Your task to perform on an android device: turn notification dots on Image 0: 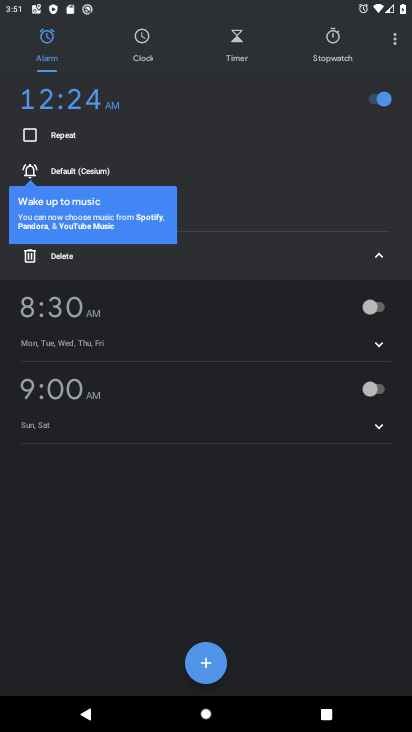
Step 0: press home button
Your task to perform on an android device: turn notification dots on Image 1: 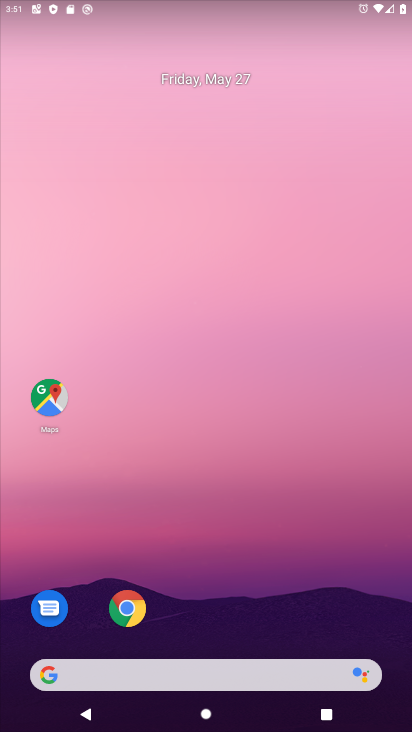
Step 1: drag from (184, 621) to (240, 190)
Your task to perform on an android device: turn notification dots on Image 2: 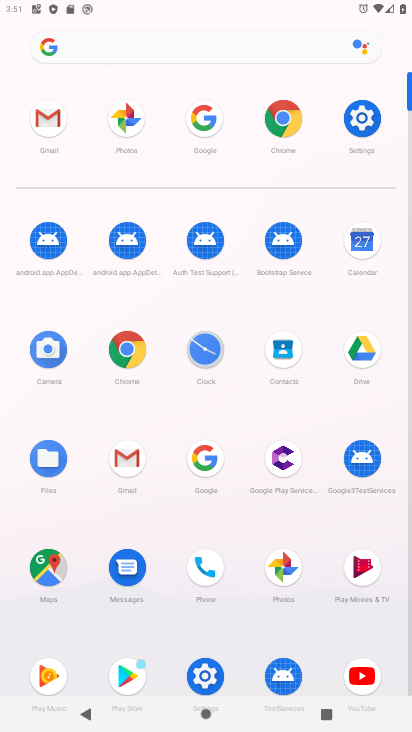
Step 2: click (364, 123)
Your task to perform on an android device: turn notification dots on Image 3: 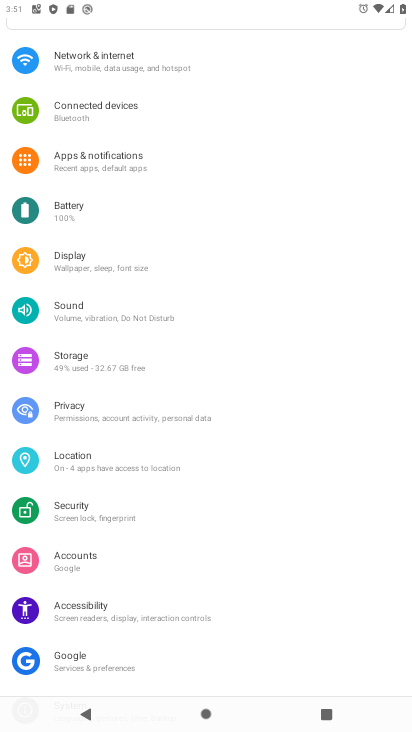
Step 3: click (102, 157)
Your task to perform on an android device: turn notification dots on Image 4: 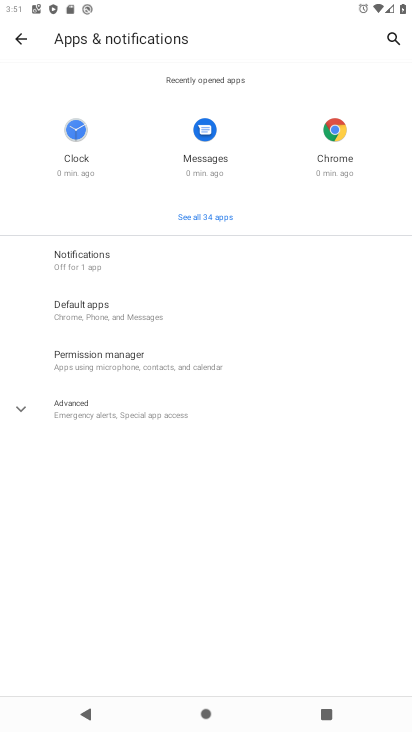
Step 4: click (83, 405)
Your task to perform on an android device: turn notification dots on Image 5: 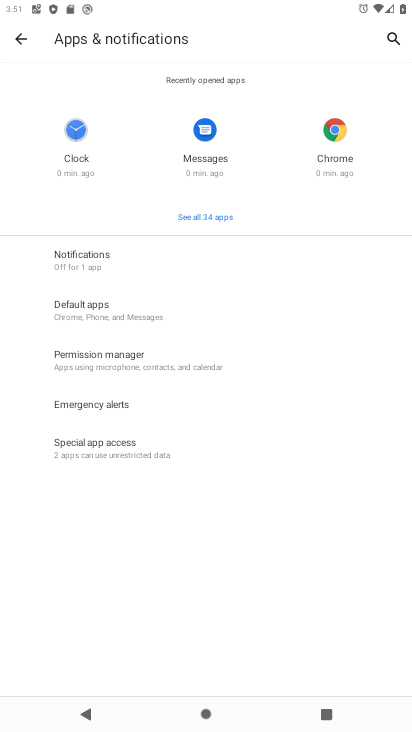
Step 5: click (100, 263)
Your task to perform on an android device: turn notification dots on Image 6: 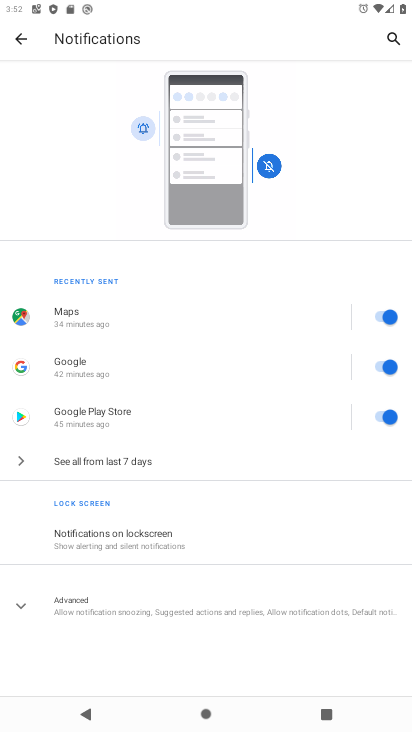
Step 6: click (78, 604)
Your task to perform on an android device: turn notification dots on Image 7: 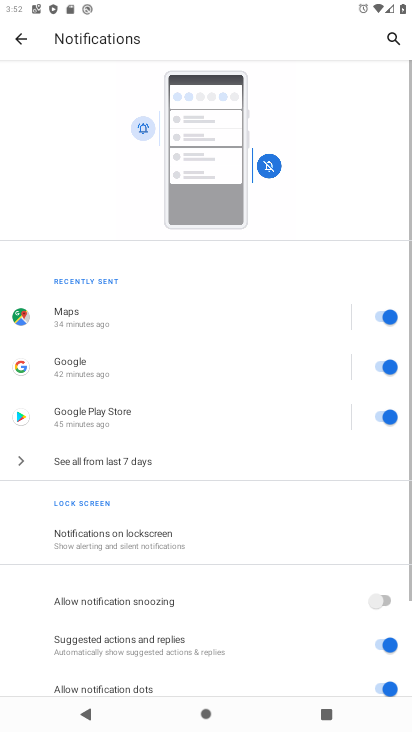
Step 7: task complete